Your task to perform on an android device: Open Google Chrome and open the bookmarks view Image 0: 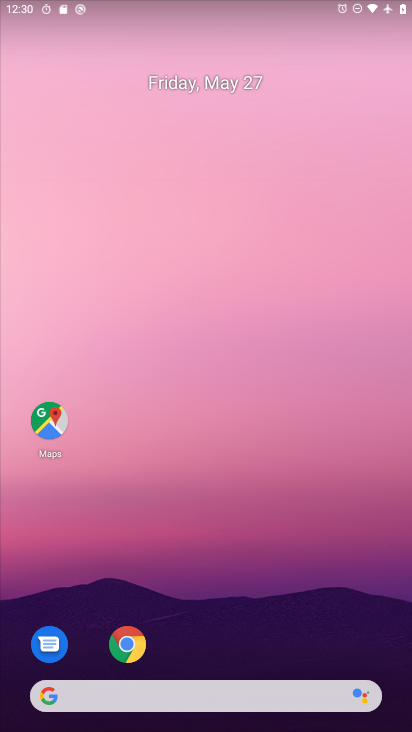
Step 0: click (127, 631)
Your task to perform on an android device: Open Google Chrome and open the bookmarks view Image 1: 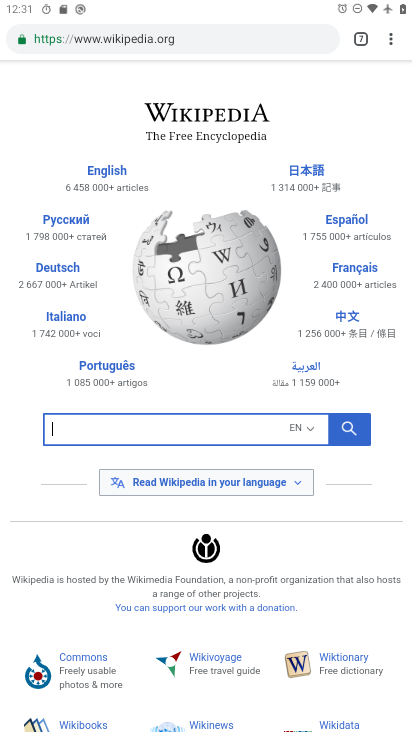
Step 1: click (392, 40)
Your task to perform on an android device: Open Google Chrome and open the bookmarks view Image 2: 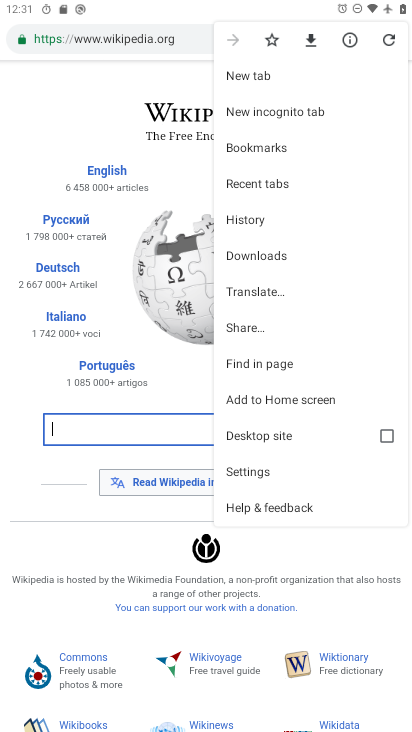
Step 2: click (259, 150)
Your task to perform on an android device: Open Google Chrome and open the bookmarks view Image 3: 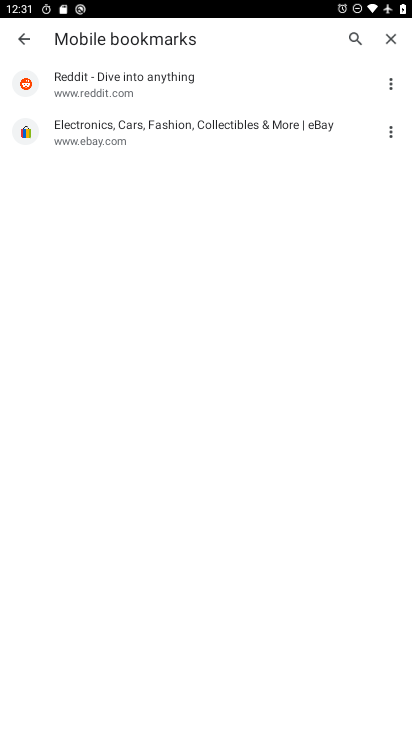
Step 3: task complete